Your task to perform on an android device: Search for pizza restaurants on Maps Image 0: 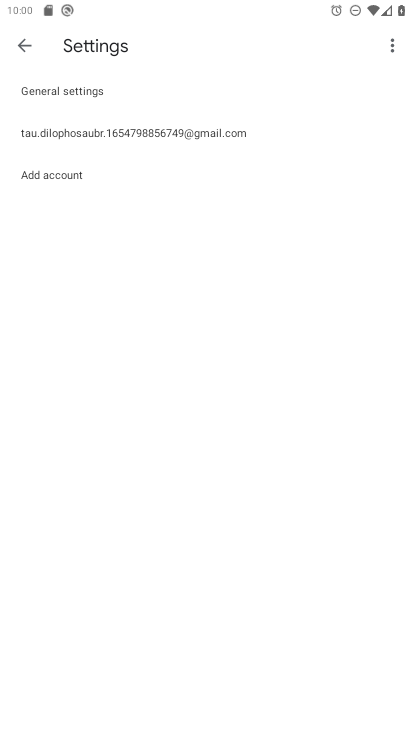
Step 0: press home button
Your task to perform on an android device: Search for pizza restaurants on Maps Image 1: 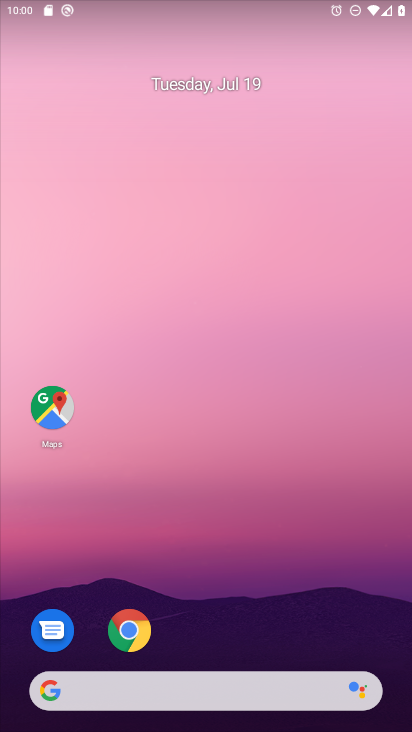
Step 1: drag from (202, 676) to (262, 229)
Your task to perform on an android device: Search for pizza restaurants on Maps Image 2: 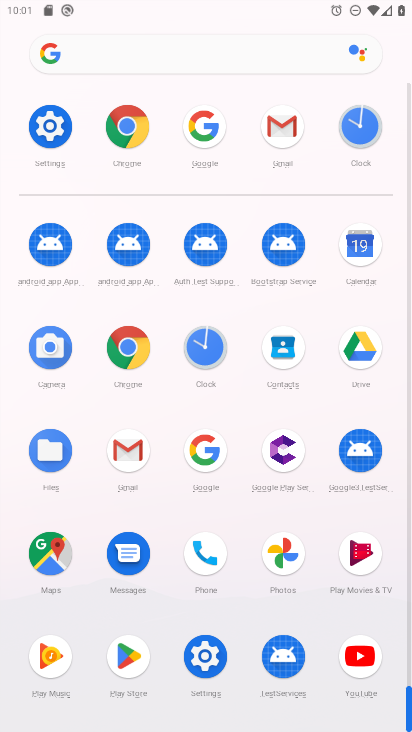
Step 2: click (48, 570)
Your task to perform on an android device: Search for pizza restaurants on Maps Image 3: 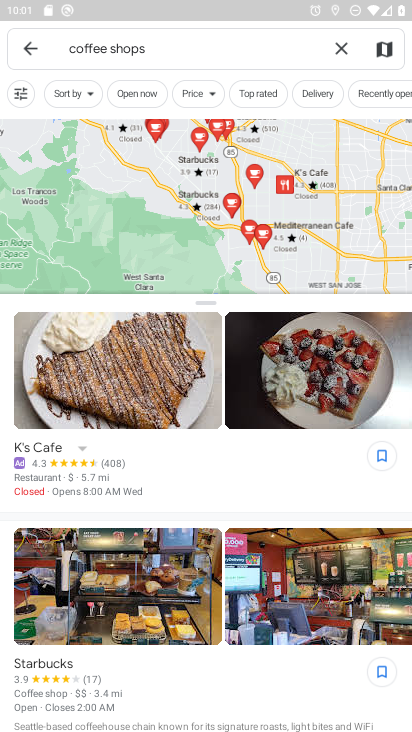
Step 3: click (342, 54)
Your task to perform on an android device: Search for pizza restaurants on Maps Image 4: 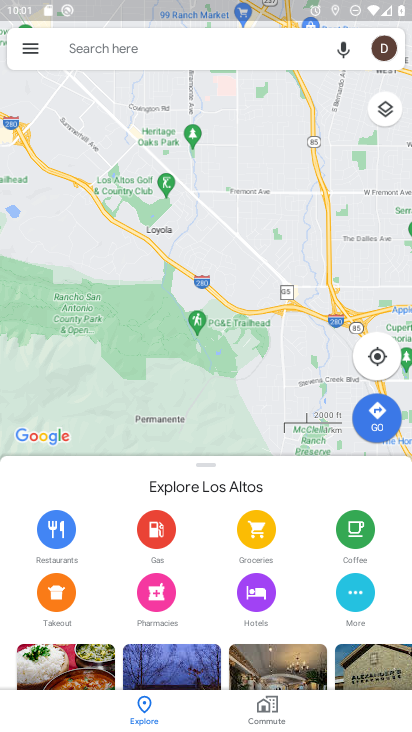
Step 4: click (266, 59)
Your task to perform on an android device: Search for pizza restaurants on Maps Image 5: 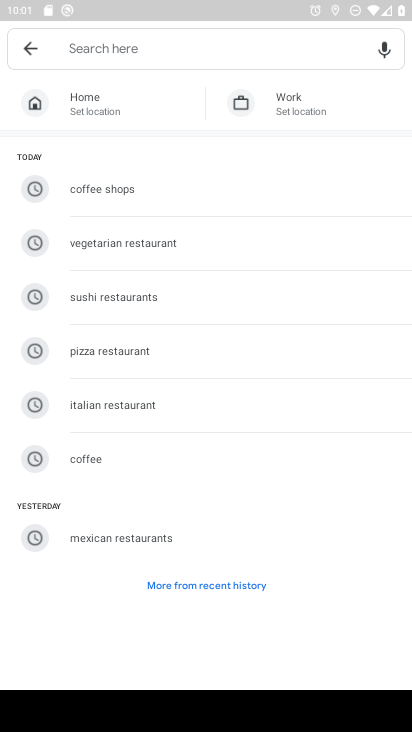
Step 5: type "pizza"
Your task to perform on an android device: Search for pizza restaurants on Maps Image 6: 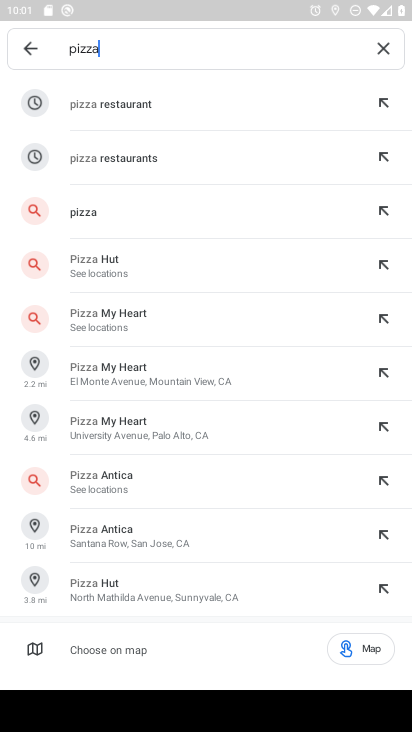
Step 6: click (175, 96)
Your task to perform on an android device: Search for pizza restaurants on Maps Image 7: 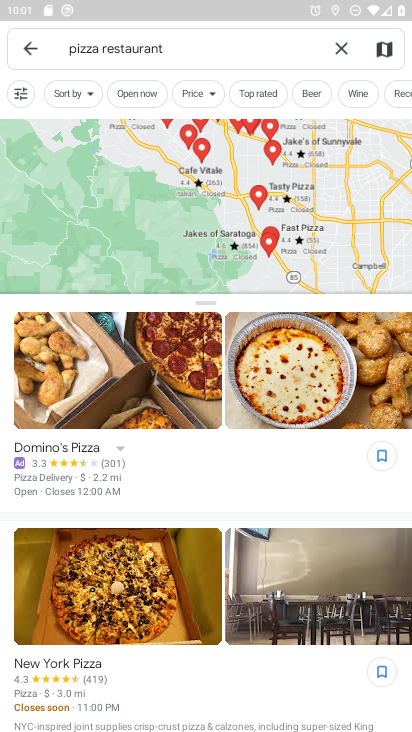
Step 7: task complete